Your task to perform on an android device: change notification settings in the gmail app Image 0: 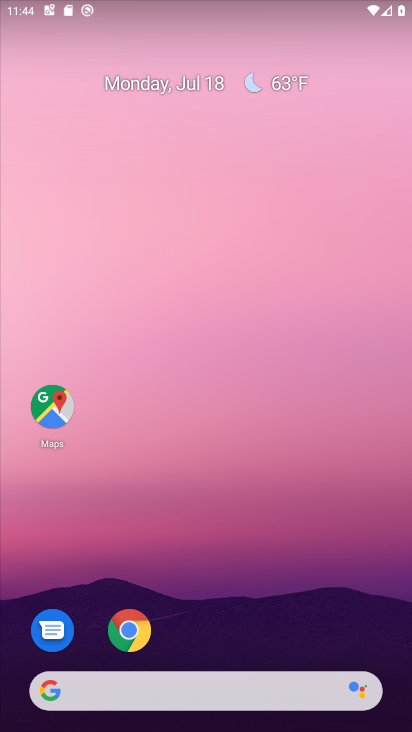
Step 0: drag from (175, 635) to (222, 113)
Your task to perform on an android device: change notification settings in the gmail app Image 1: 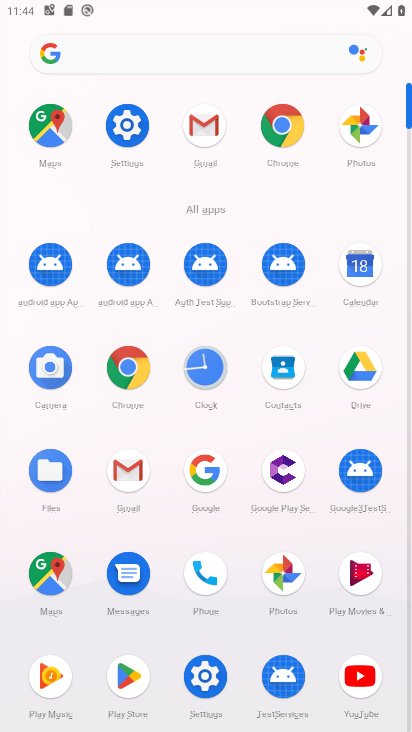
Step 1: click (200, 123)
Your task to perform on an android device: change notification settings in the gmail app Image 2: 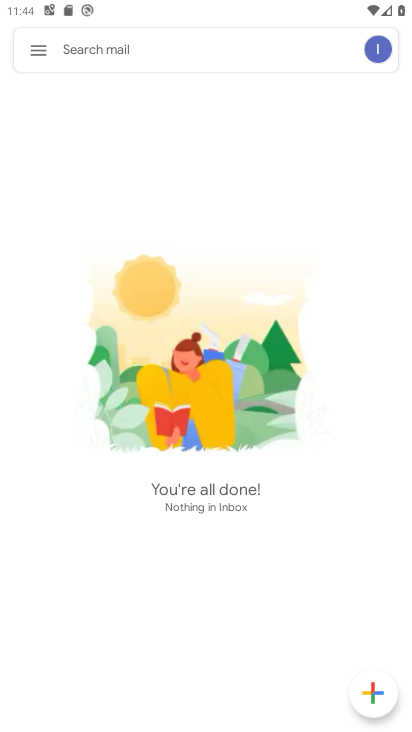
Step 2: click (35, 50)
Your task to perform on an android device: change notification settings in the gmail app Image 3: 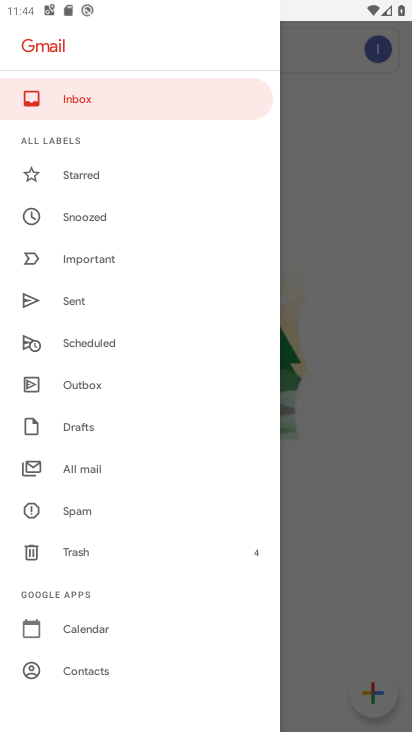
Step 3: drag from (156, 609) to (126, 154)
Your task to perform on an android device: change notification settings in the gmail app Image 4: 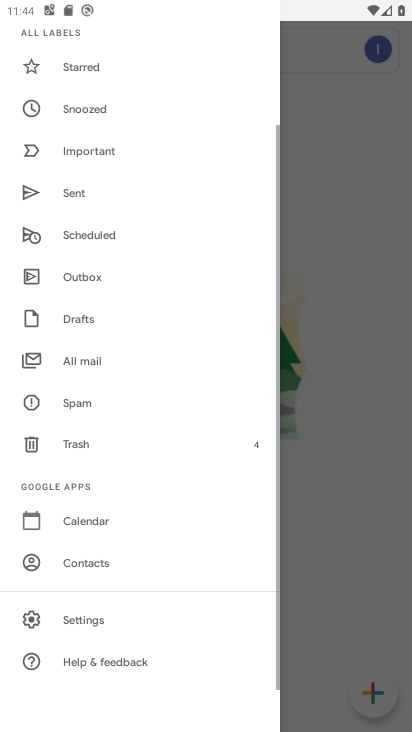
Step 4: click (66, 626)
Your task to perform on an android device: change notification settings in the gmail app Image 5: 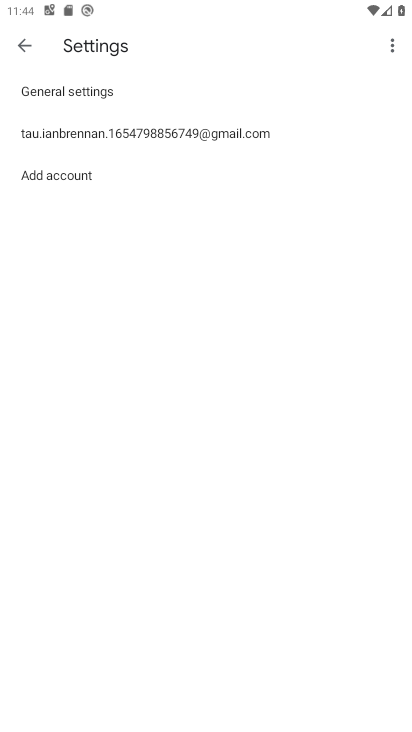
Step 5: click (149, 137)
Your task to perform on an android device: change notification settings in the gmail app Image 6: 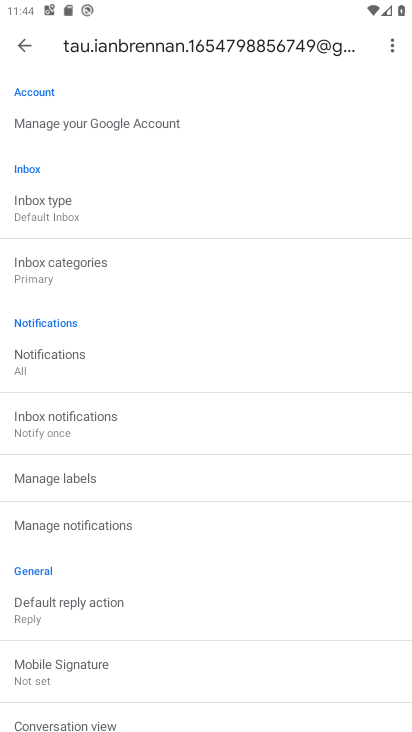
Step 6: click (79, 364)
Your task to perform on an android device: change notification settings in the gmail app Image 7: 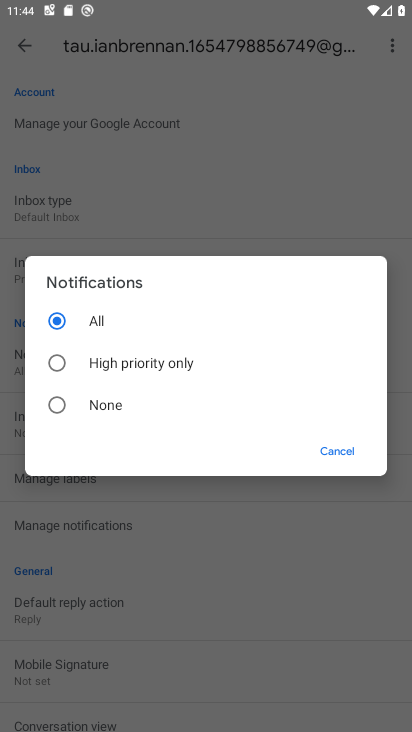
Step 7: click (63, 399)
Your task to perform on an android device: change notification settings in the gmail app Image 8: 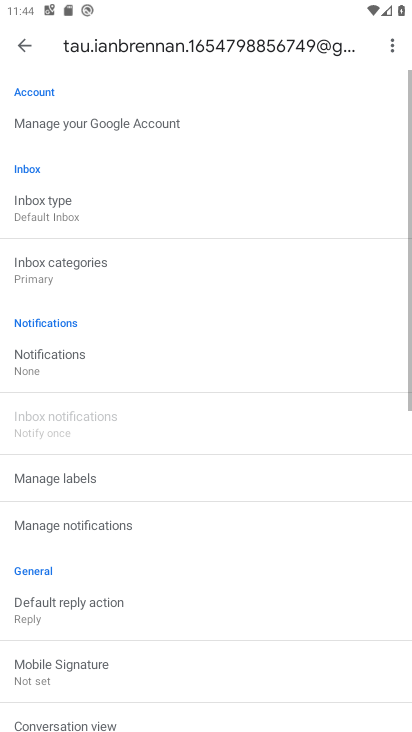
Step 8: task complete